Your task to perform on an android device: Search for Italian restaurants on Maps Image 0: 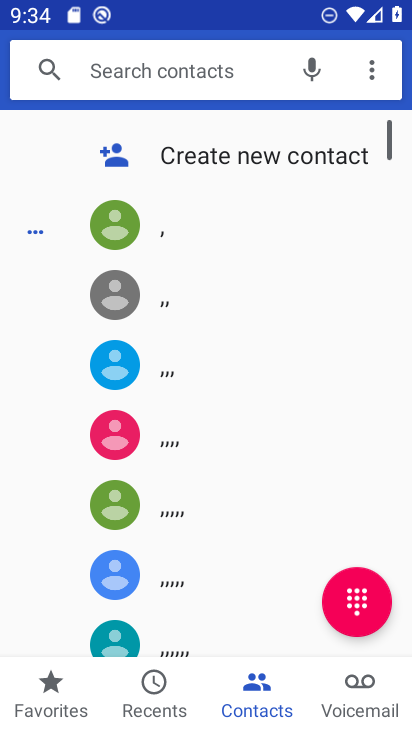
Step 0: press home button
Your task to perform on an android device: Search for Italian restaurants on Maps Image 1: 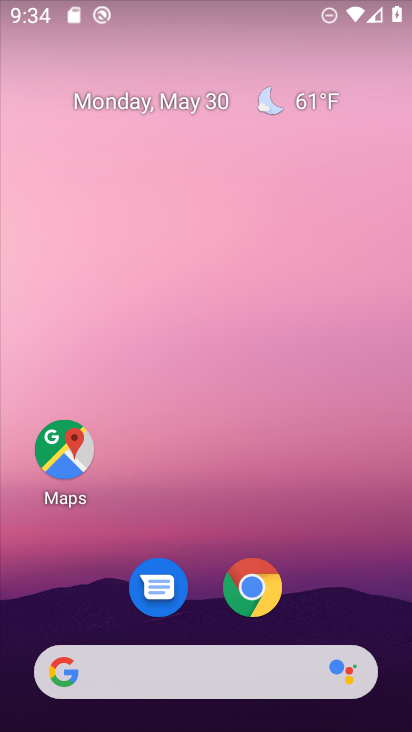
Step 1: click (67, 453)
Your task to perform on an android device: Search for Italian restaurants on Maps Image 2: 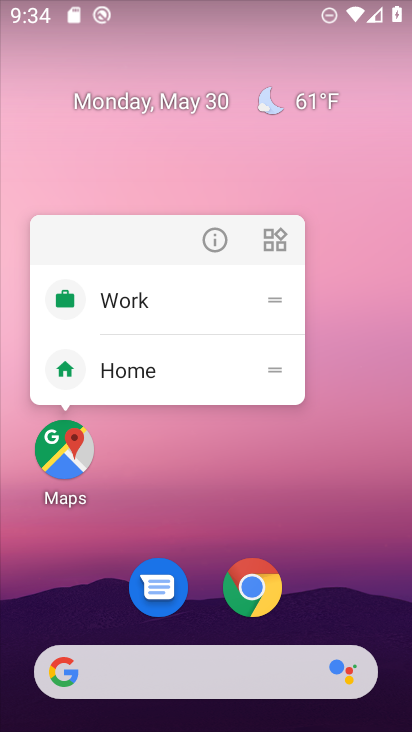
Step 2: click (80, 454)
Your task to perform on an android device: Search for Italian restaurants on Maps Image 3: 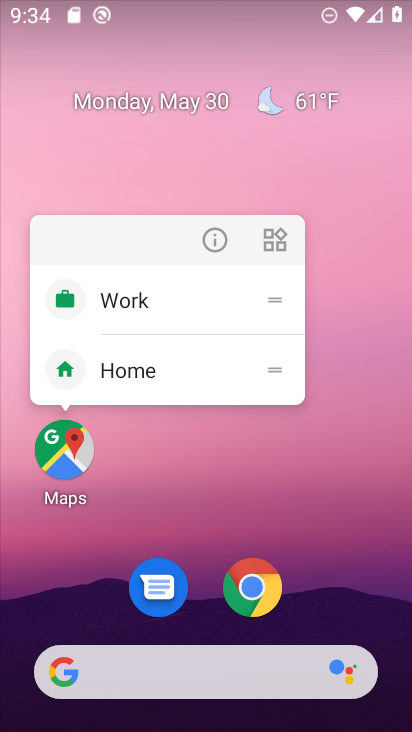
Step 3: click (74, 454)
Your task to perform on an android device: Search for Italian restaurants on Maps Image 4: 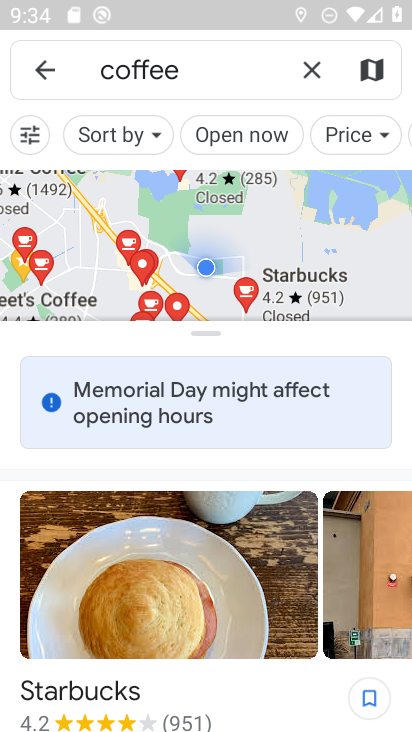
Step 4: click (309, 66)
Your task to perform on an android device: Search for Italian restaurants on Maps Image 5: 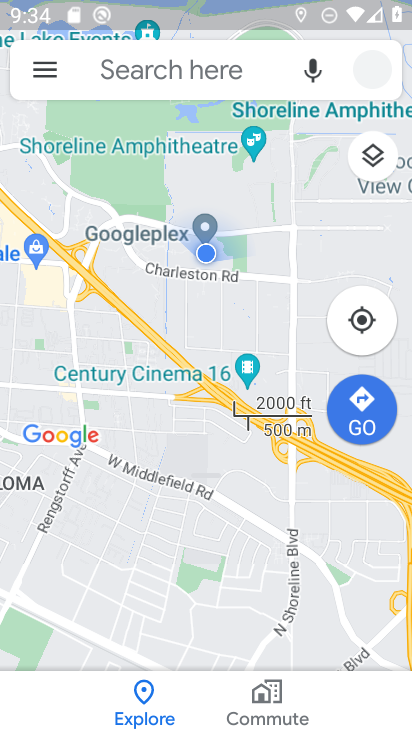
Step 5: click (159, 64)
Your task to perform on an android device: Search for Italian restaurants on Maps Image 6: 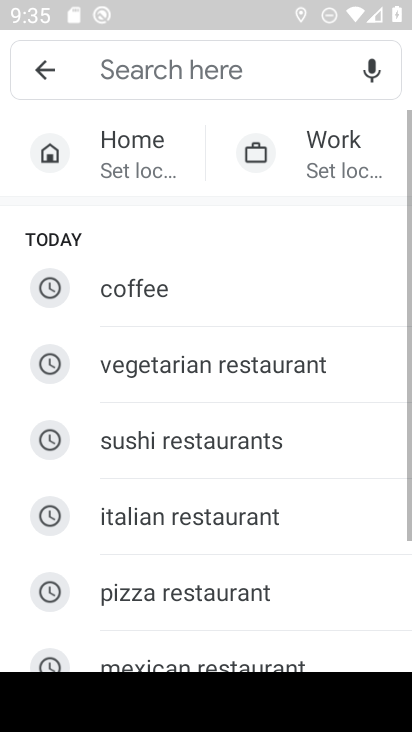
Step 6: click (196, 506)
Your task to perform on an android device: Search for Italian restaurants on Maps Image 7: 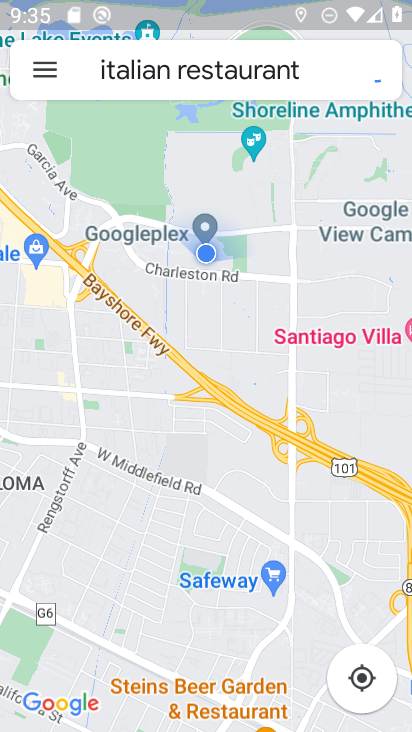
Step 7: task complete